Your task to perform on an android device: change timer sound Image 0: 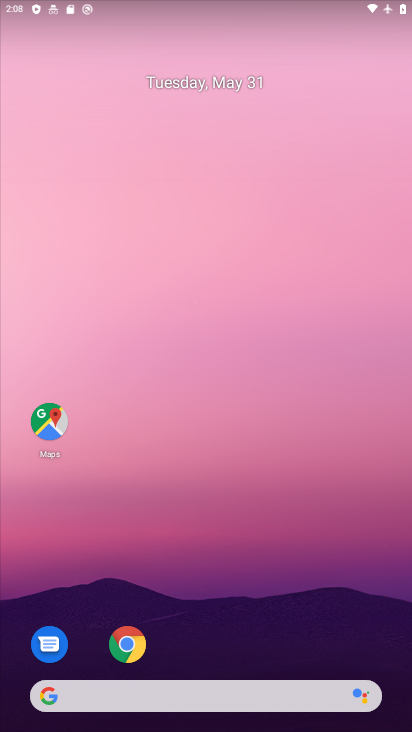
Step 0: drag from (309, 531) to (258, 117)
Your task to perform on an android device: change timer sound Image 1: 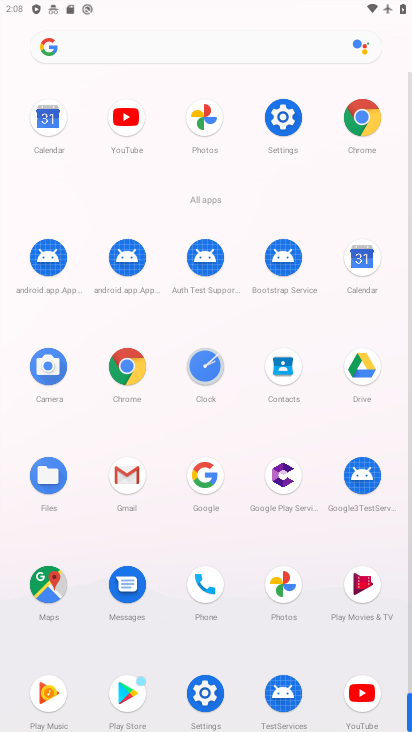
Step 1: click (279, 108)
Your task to perform on an android device: change timer sound Image 2: 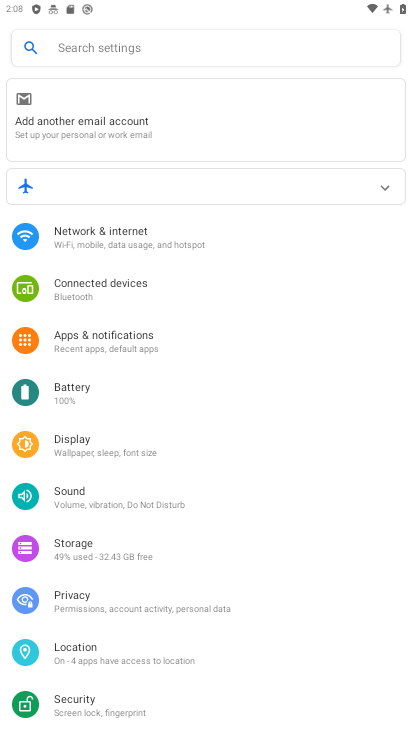
Step 2: press home button
Your task to perform on an android device: change timer sound Image 3: 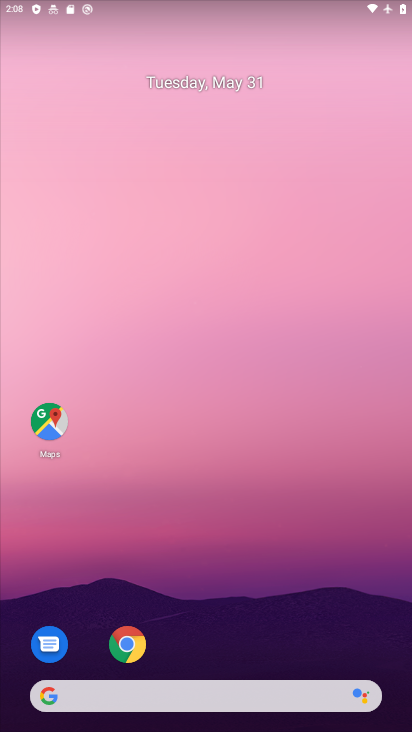
Step 3: drag from (260, 646) to (272, 157)
Your task to perform on an android device: change timer sound Image 4: 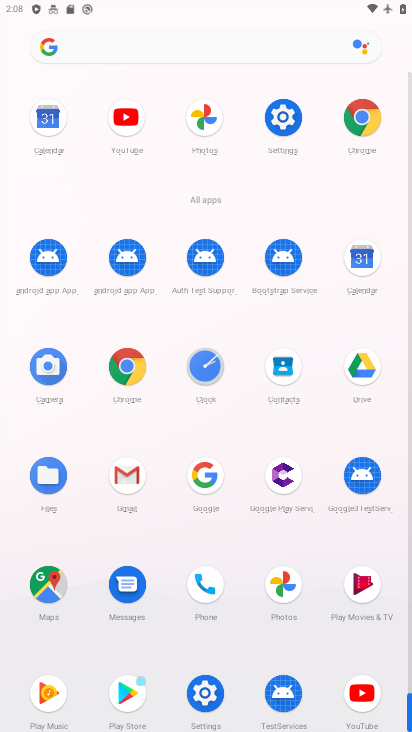
Step 4: click (213, 366)
Your task to perform on an android device: change timer sound Image 5: 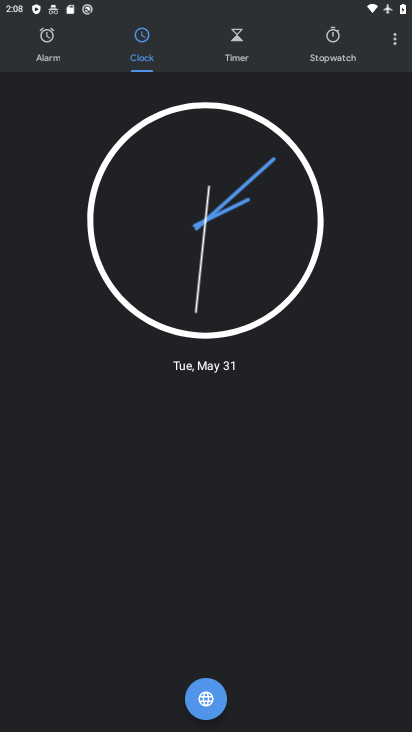
Step 5: click (393, 42)
Your task to perform on an android device: change timer sound Image 6: 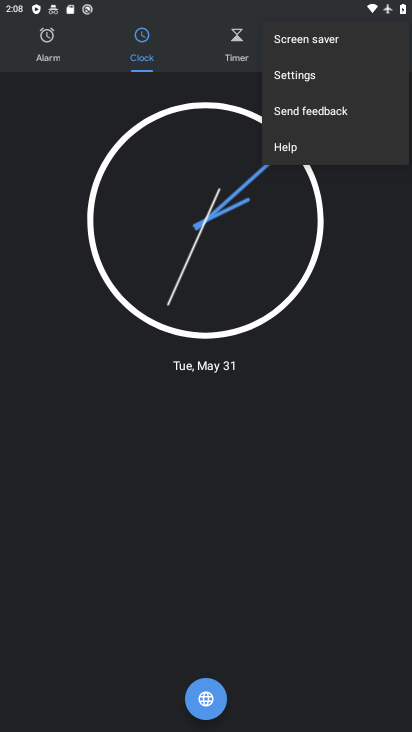
Step 6: click (307, 76)
Your task to perform on an android device: change timer sound Image 7: 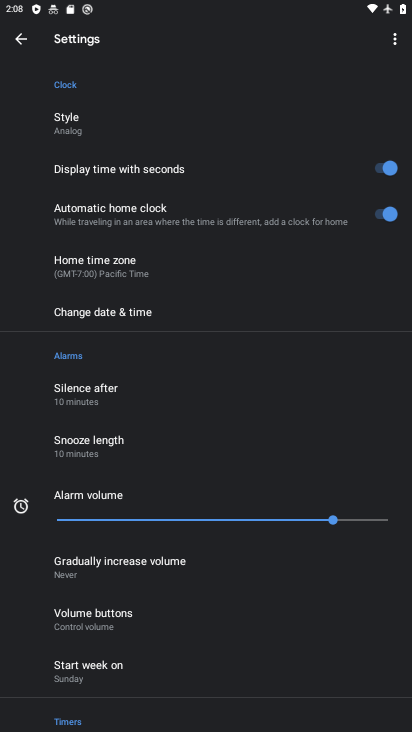
Step 7: drag from (179, 635) to (247, 203)
Your task to perform on an android device: change timer sound Image 8: 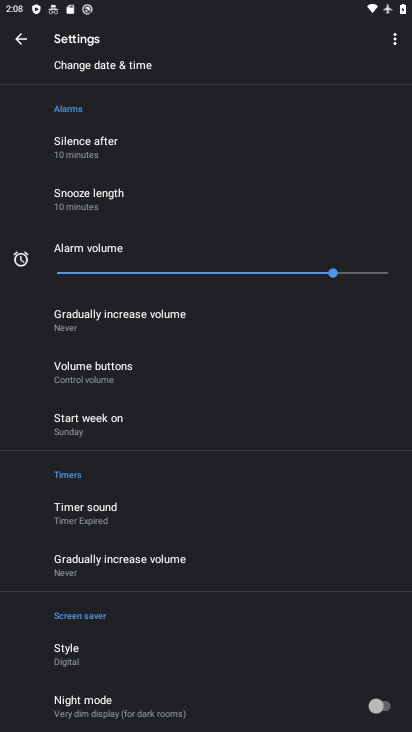
Step 8: click (87, 506)
Your task to perform on an android device: change timer sound Image 9: 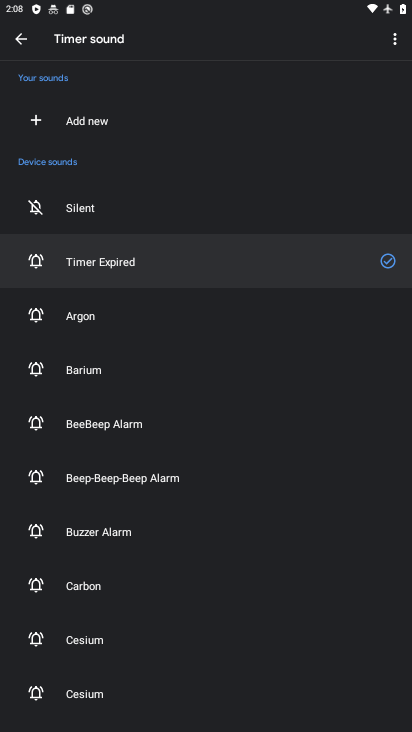
Step 9: click (212, 315)
Your task to perform on an android device: change timer sound Image 10: 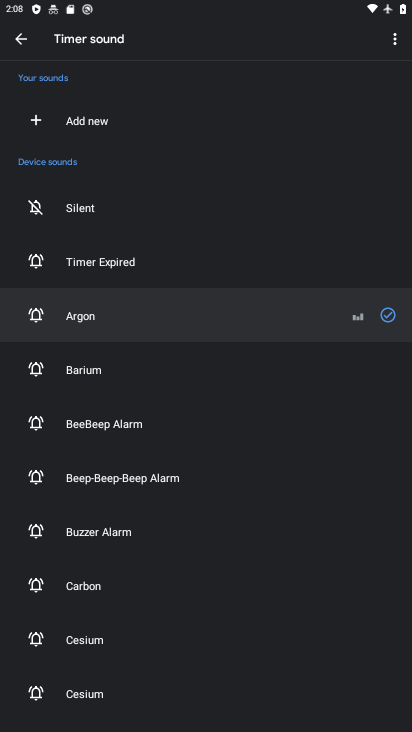
Step 10: task complete